Your task to perform on an android device: Is it going to rain this weekend? Image 0: 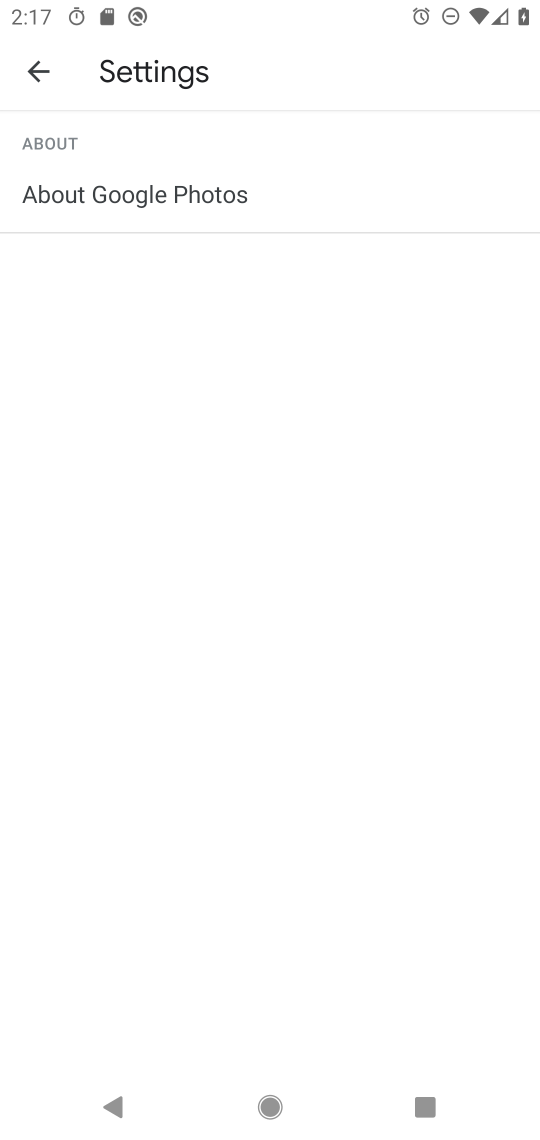
Step 0: press home button
Your task to perform on an android device: Is it going to rain this weekend? Image 1: 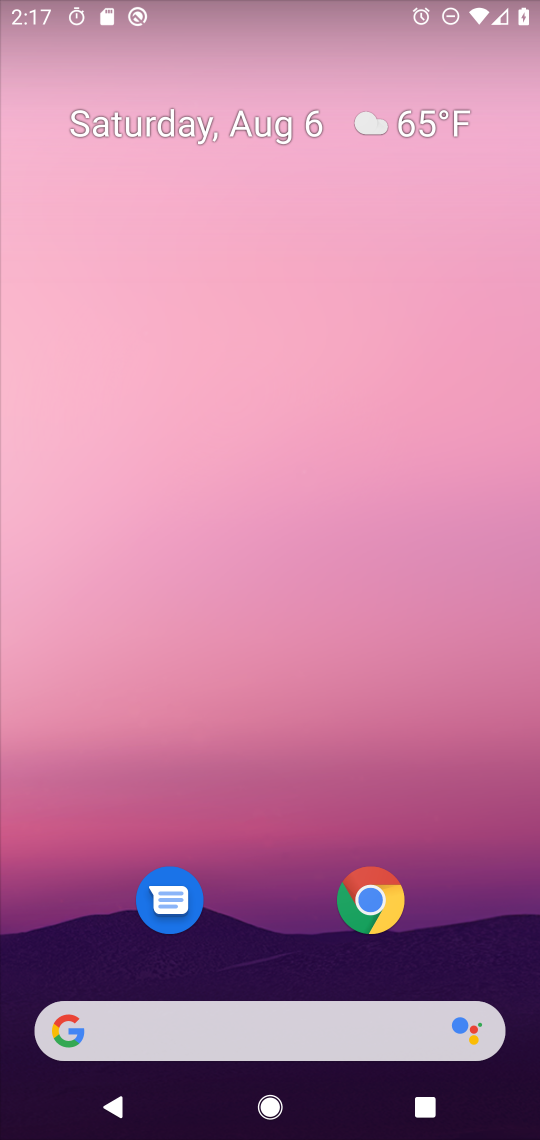
Step 1: drag from (291, 970) to (306, 176)
Your task to perform on an android device: Is it going to rain this weekend? Image 2: 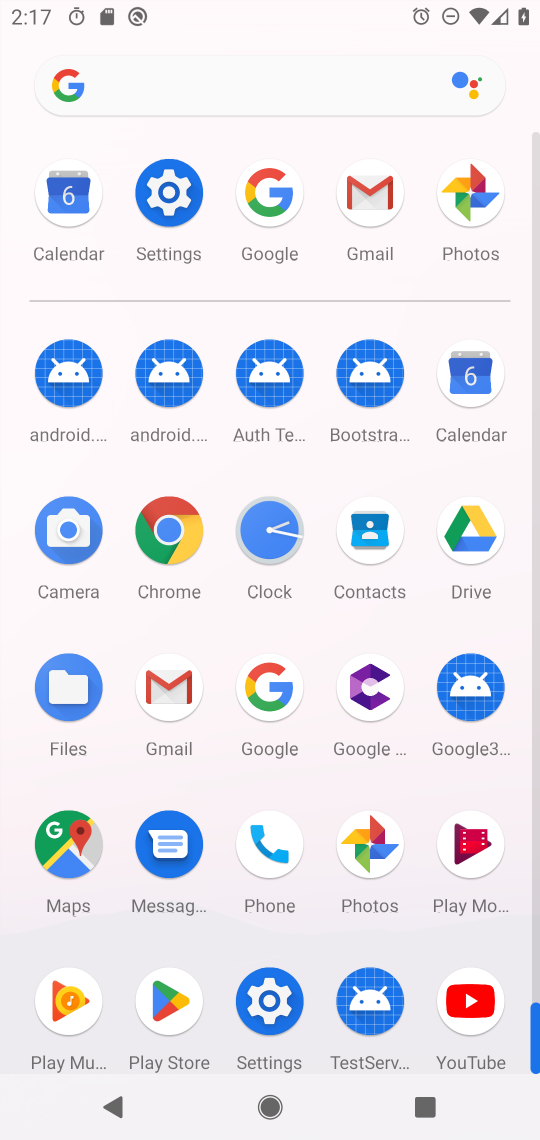
Step 2: click (272, 676)
Your task to perform on an android device: Is it going to rain this weekend? Image 3: 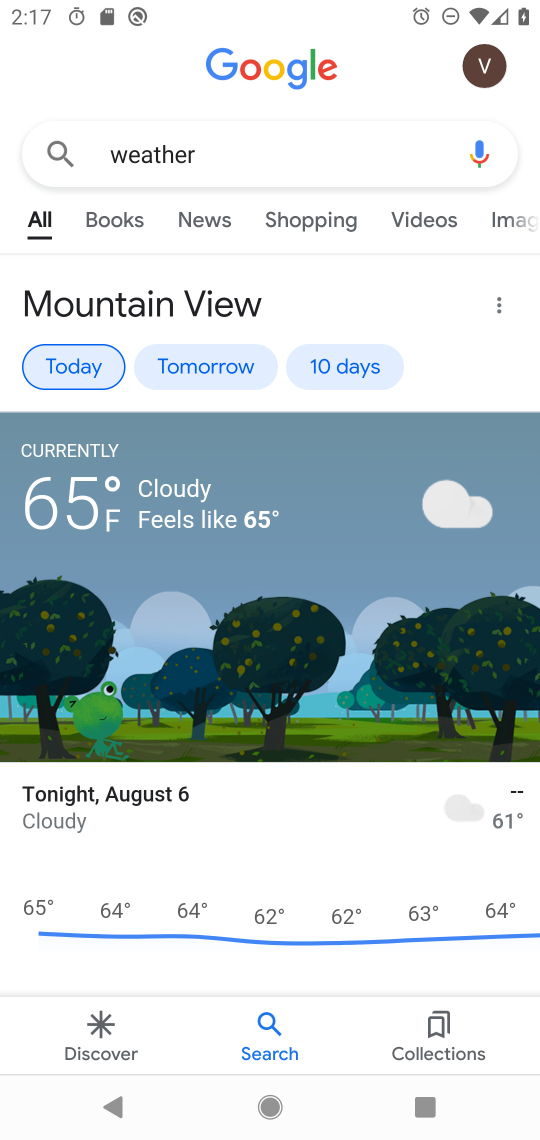
Step 3: click (336, 369)
Your task to perform on an android device: Is it going to rain this weekend? Image 4: 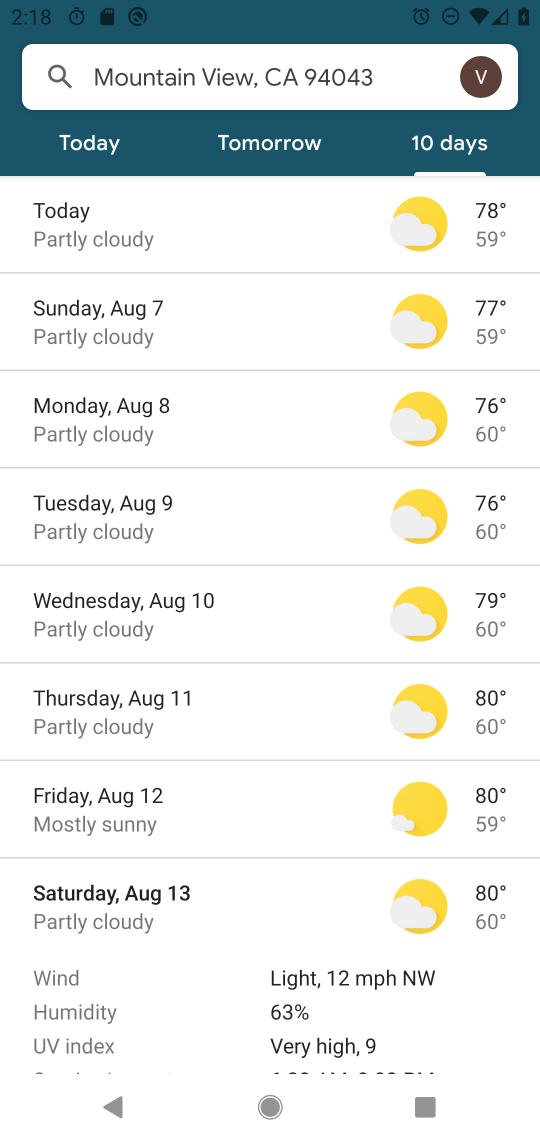
Step 4: click (153, 311)
Your task to perform on an android device: Is it going to rain this weekend? Image 5: 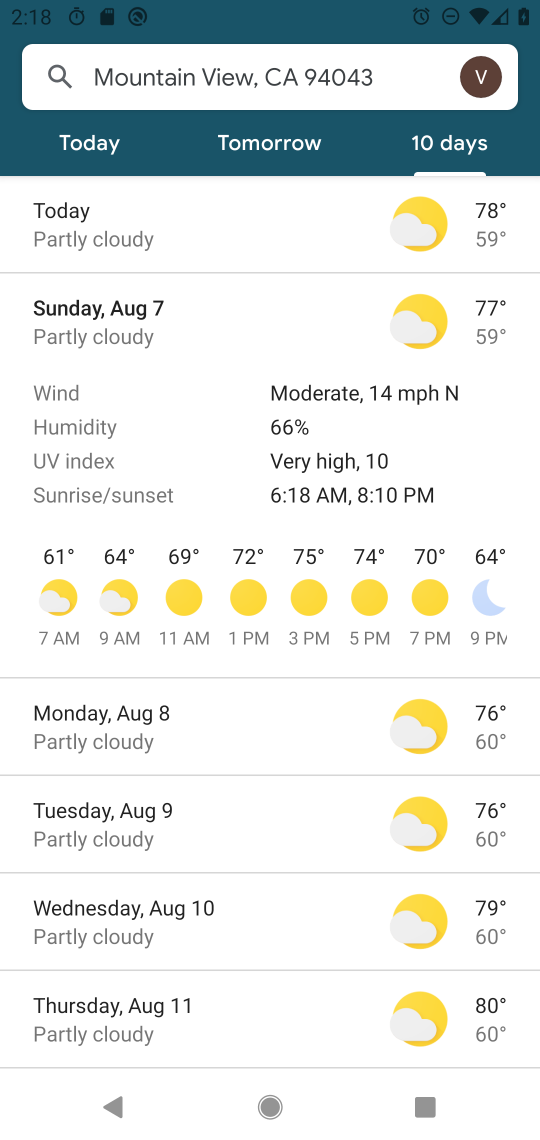
Step 5: task complete